Your task to perform on an android device: open app "Google Play Music" Image 0: 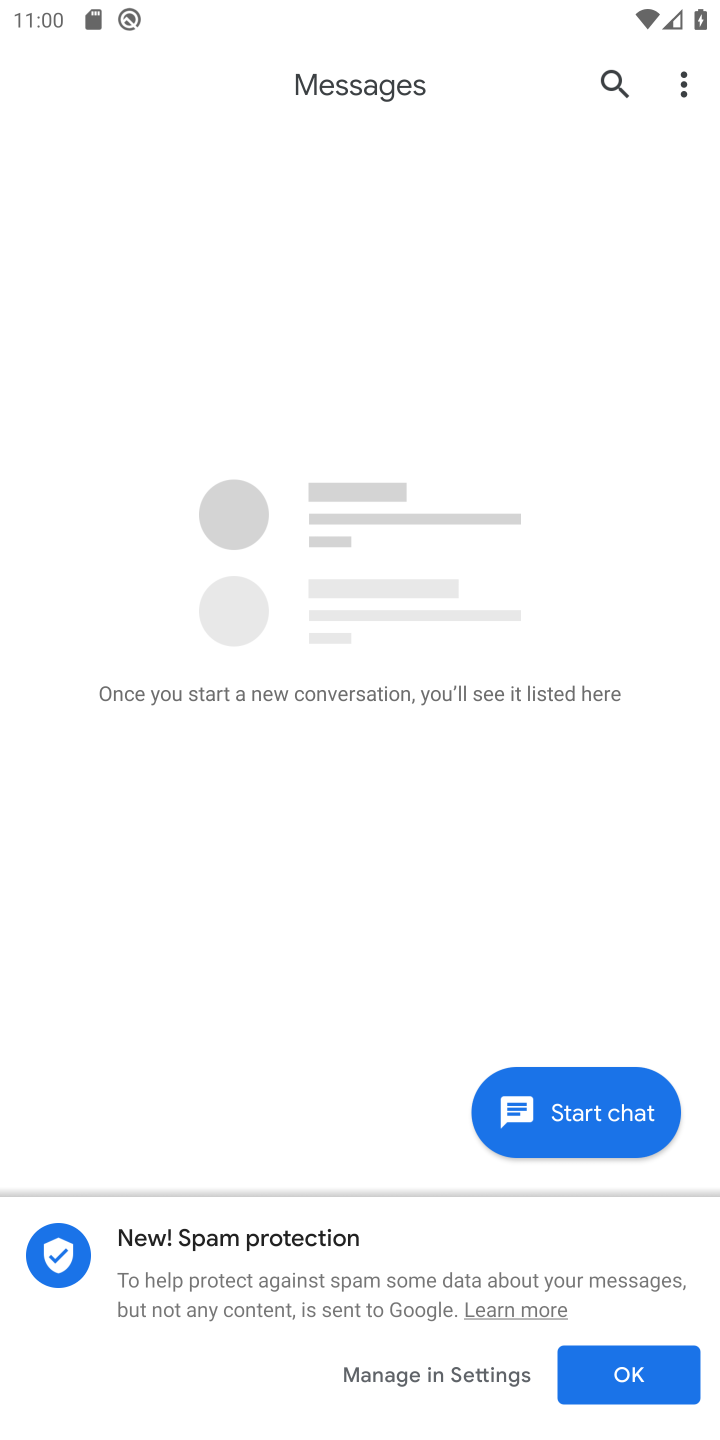
Step 0: press home button
Your task to perform on an android device: open app "Google Play Music" Image 1: 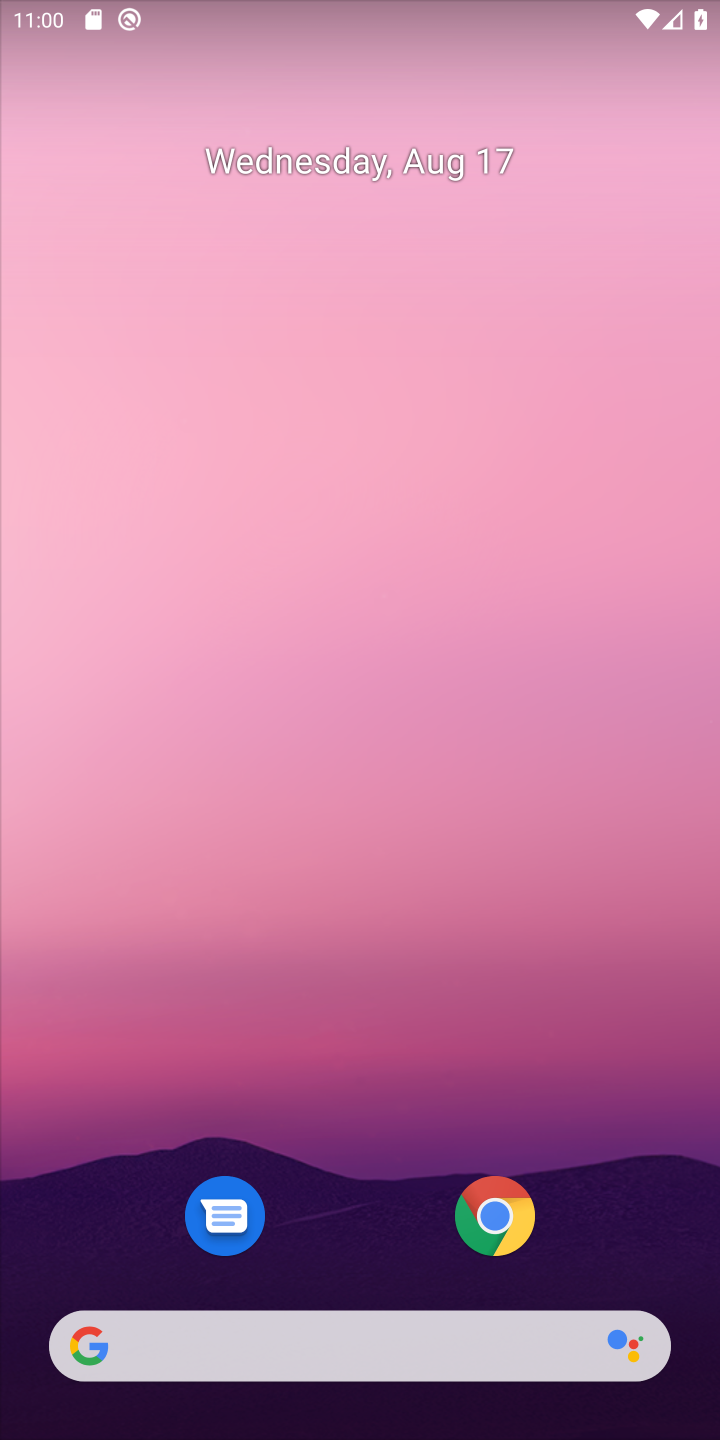
Step 1: drag from (412, 952) to (379, 370)
Your task to perform on an android device: open app "Google Play Music" Image 2: 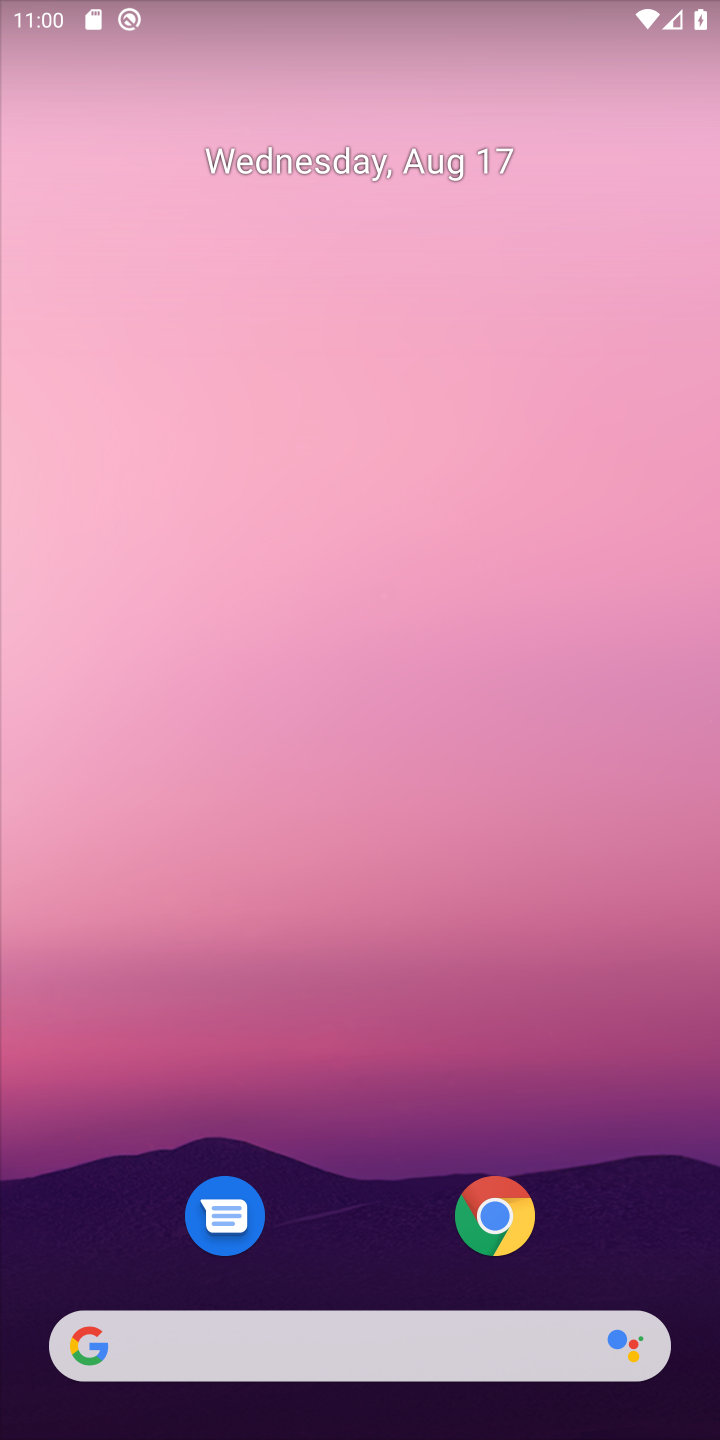
Step 2: drag from (421, 1162) to (435, 374)
Your task to perform on an android device: open app "Google Play Music" Image 3: 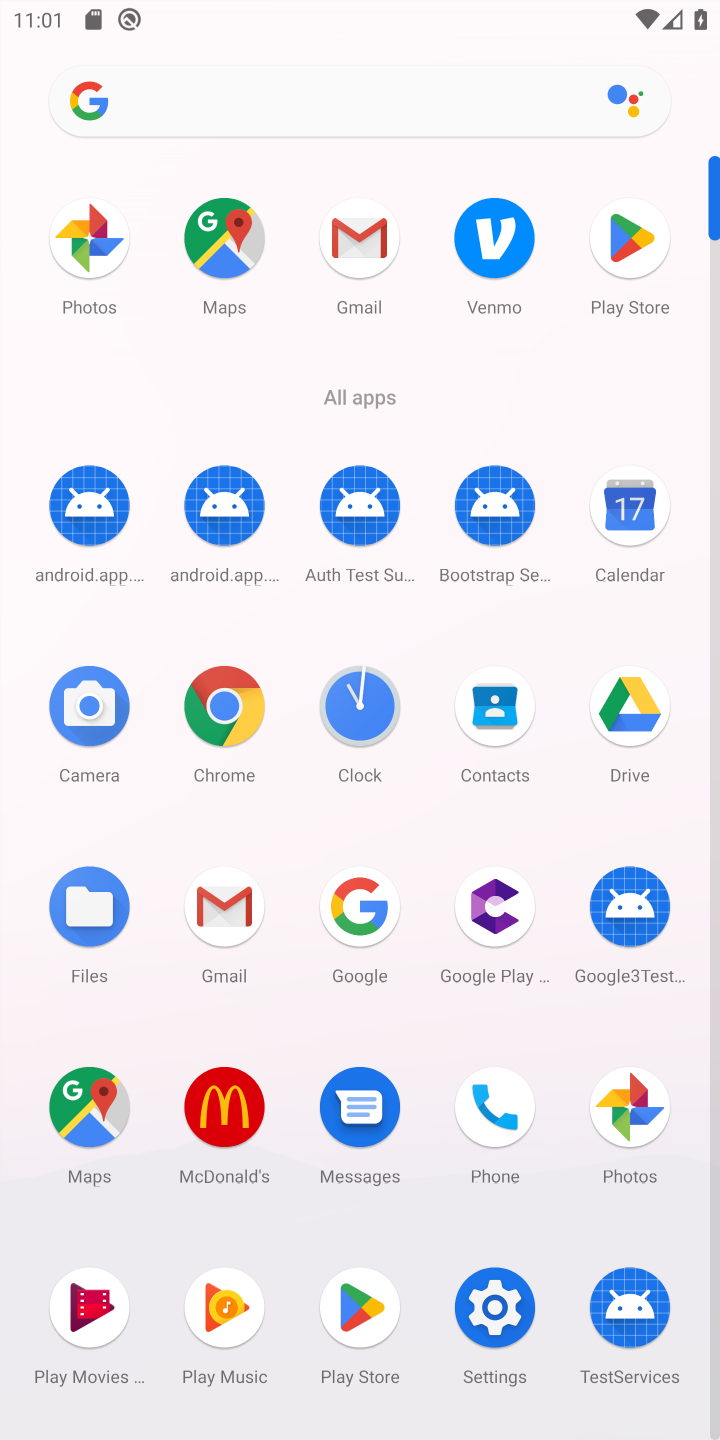
Step 3: click (210, 1305)
Your task to perform on an android device: open app "Google Play Music" Image 4: 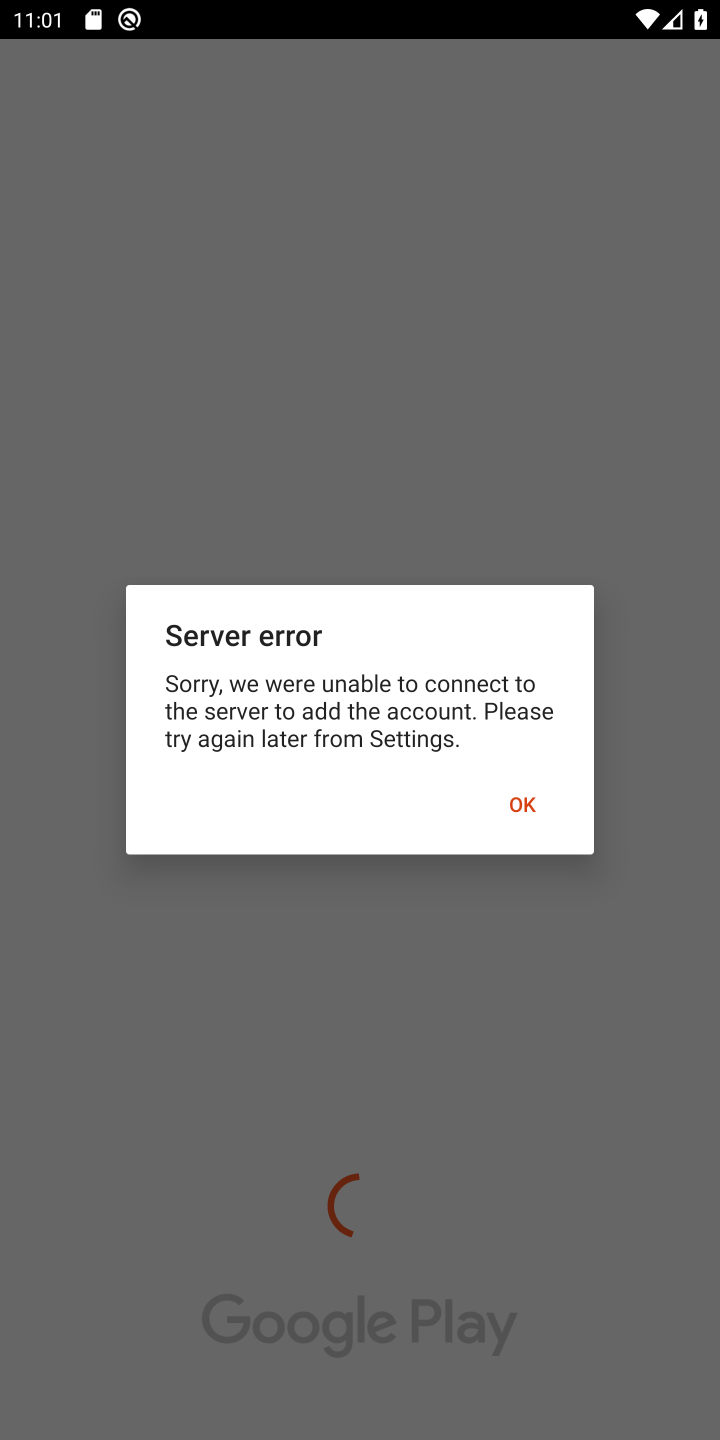
Step 4: click (527, 806)
Your task to perform on an android device: open app "Google Play Music" Image 5: 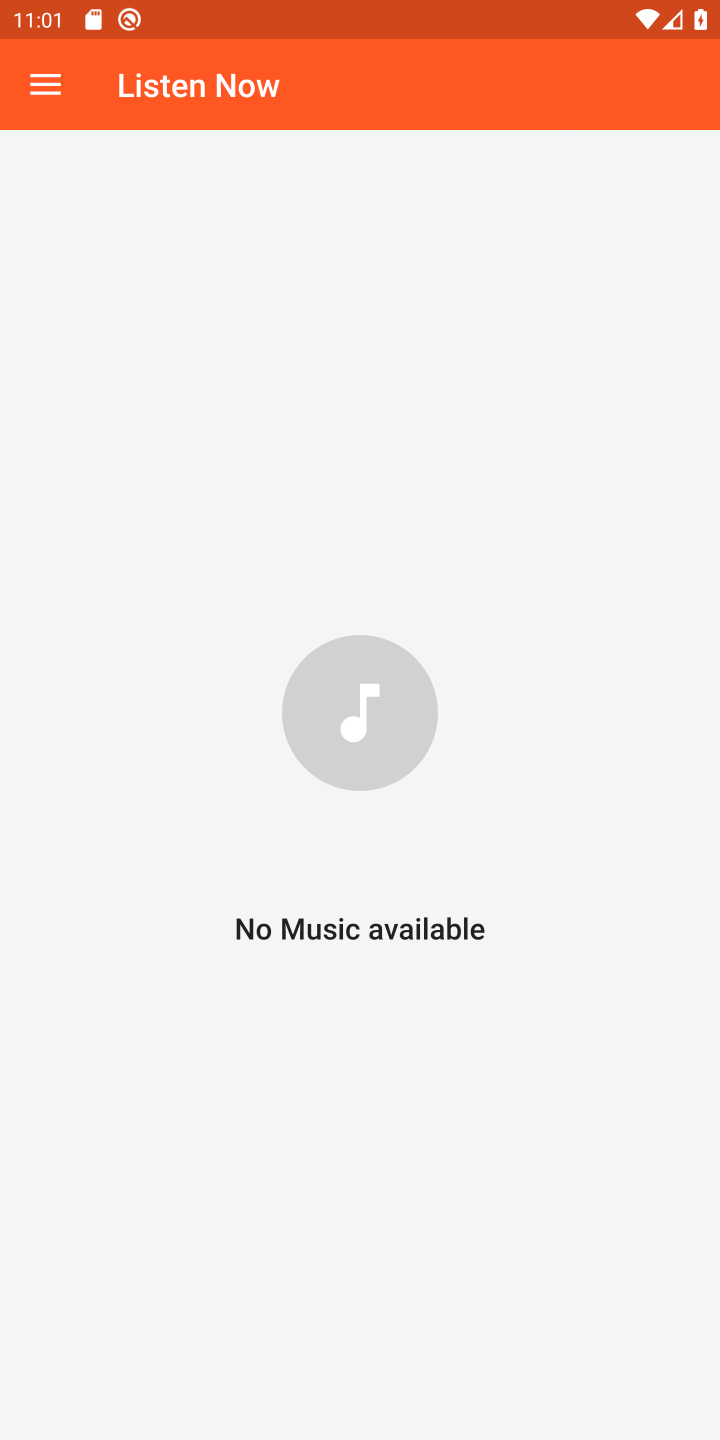
Step 5: task complete